Your task to perform on an android device: check android version Image 0: 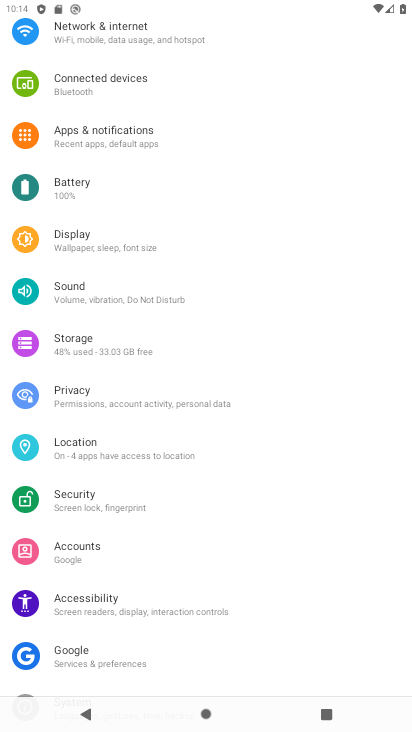
Step 0: drag from (145, 651) to (174, 211)
Your task to perform on an android device: check android version Image 1: 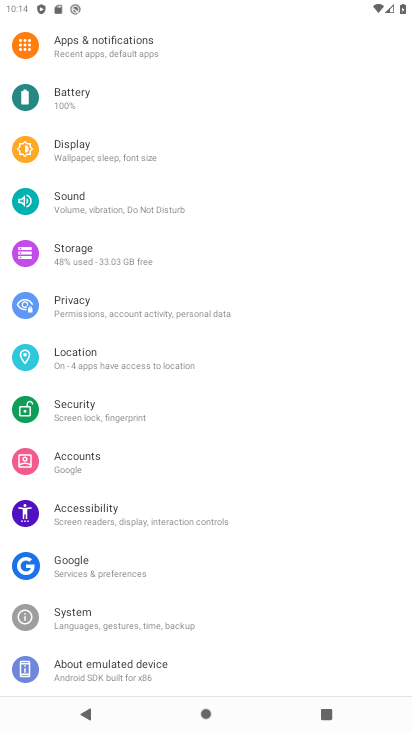
Step 1: click (125, 669)
Your task to perform on an android device: check android version Image 2: 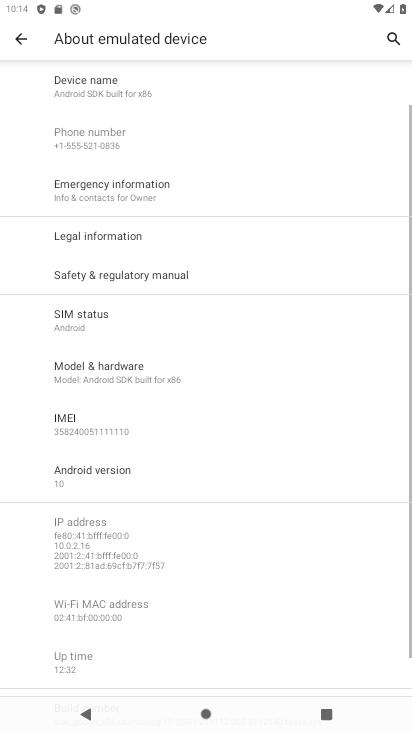
Step 2: click (90, 480)
Your task to perform on an android device: check android version Image 3: 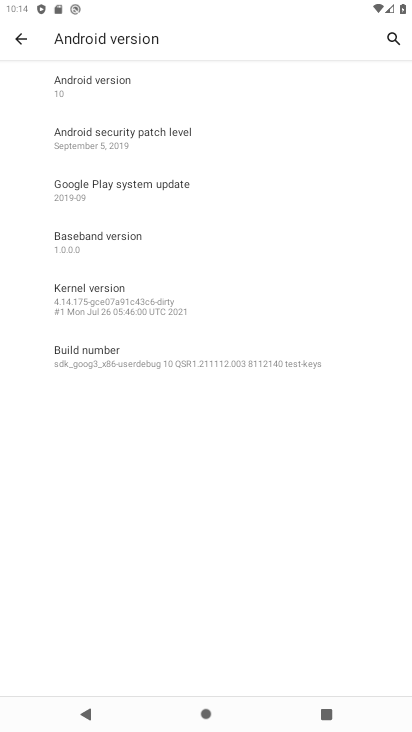
Step 3: task complete